Your task to perform on an android device: Go to Google Image 0: 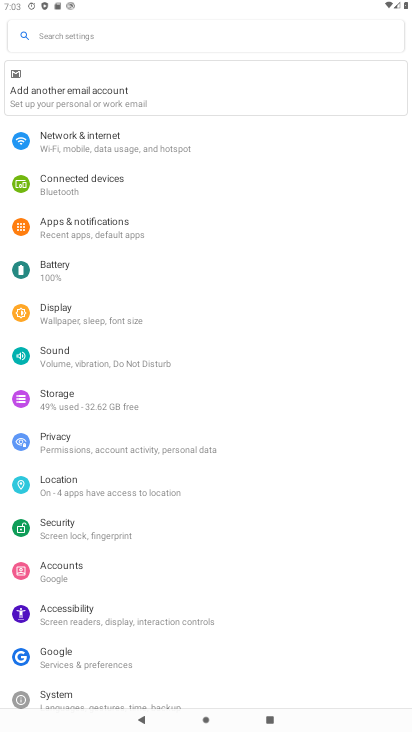
Step 0: press home button
Your task to perform on an android device: Go to Google Image 1: 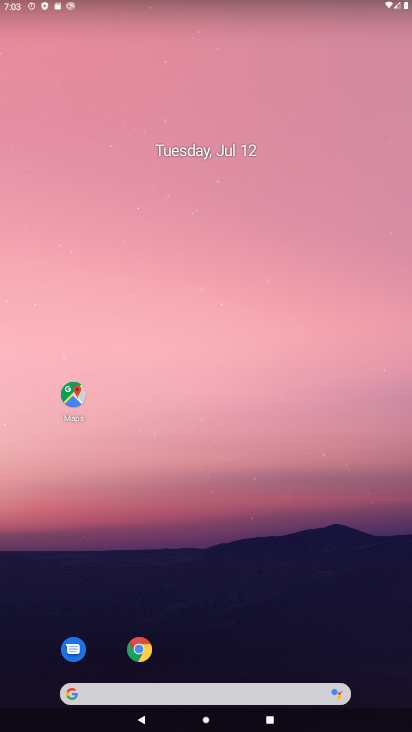
Step 1: drag from (185, 689) to (229, 150)
Your task to perform on an android device: Go to Google Image 2: 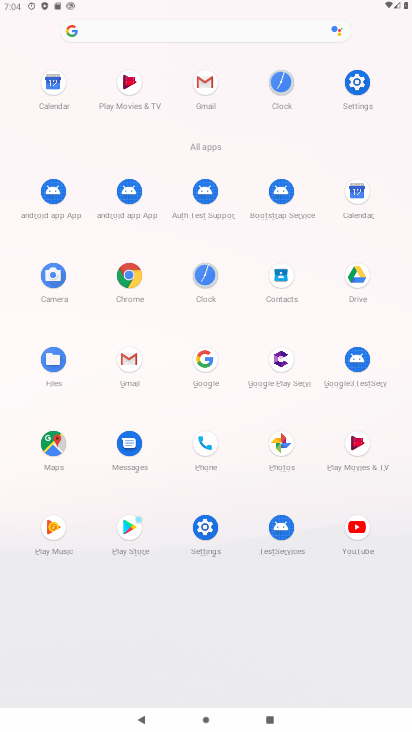
Step 2: click (205, 358)
Your task to perform on an android device: Go to Google Image 3: 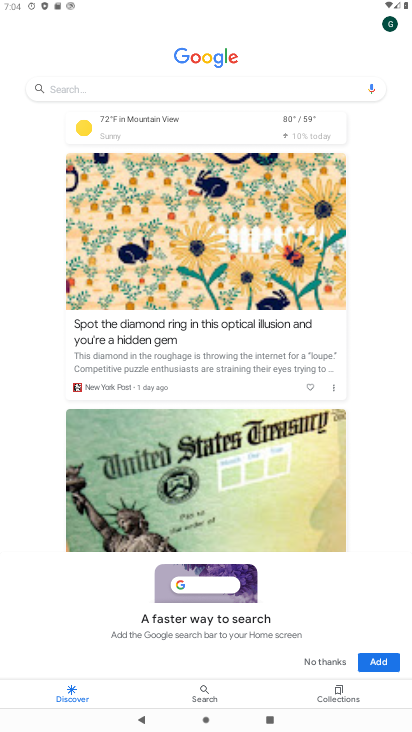
Step 3: task complete